Your task to perform on an android device: Open sound settings Image 0: 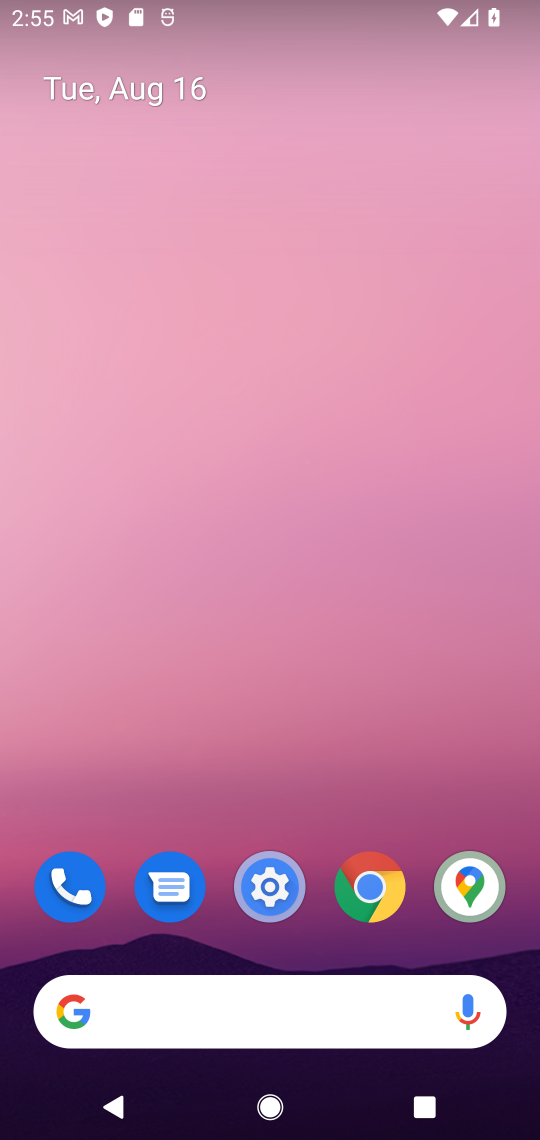
Step 0: drag from (396, 799) to (355, 181)
Your task to perform on an android device: Open sound settings Image 1: 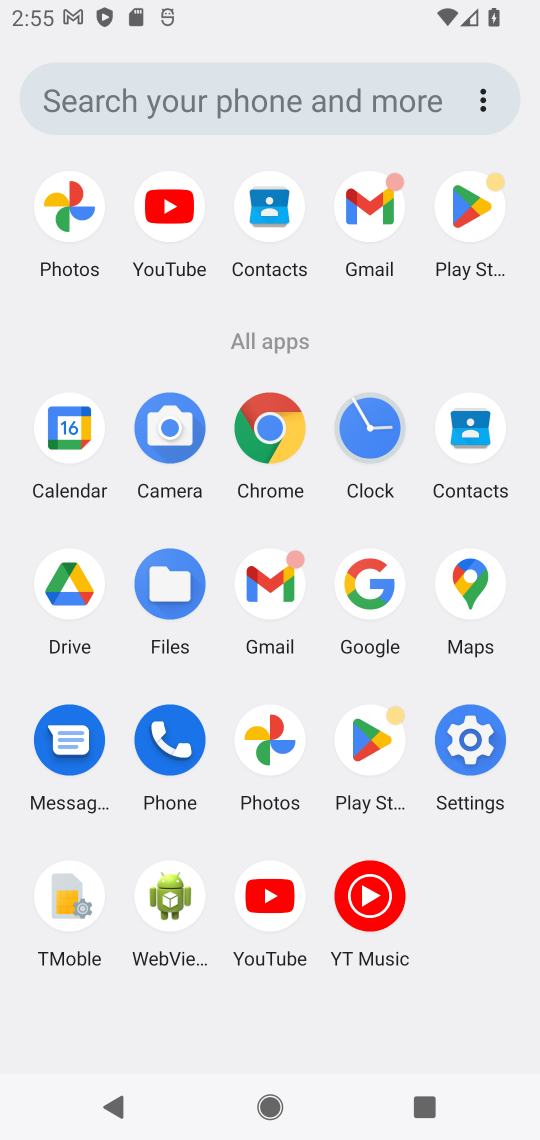
Step 1: click (467, 725)
Your task to perform on an android device: Open sound settings Image 2: 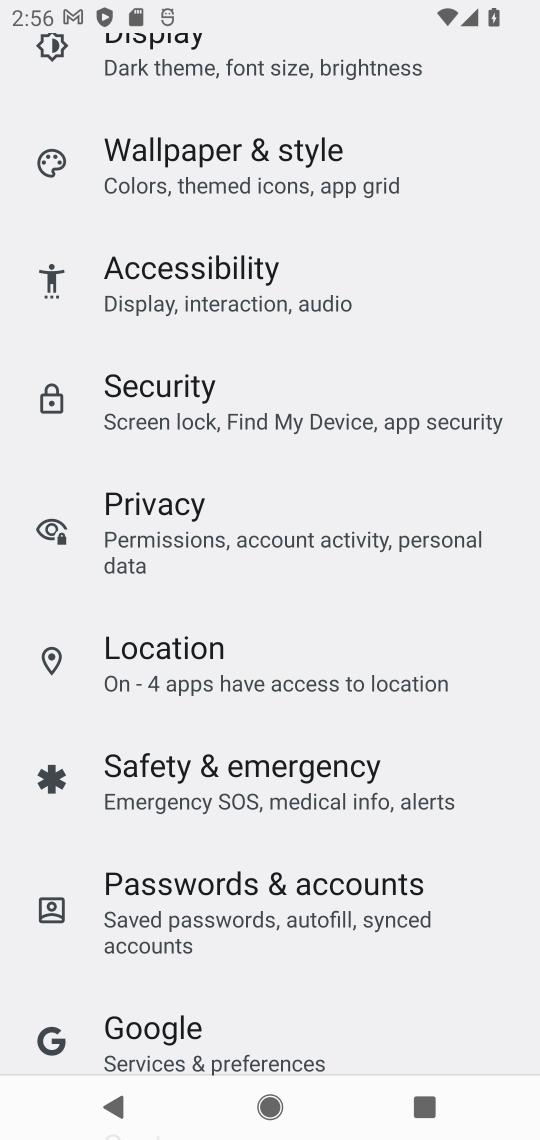
Step 2: drag from (430, 254) to (315, 956)
Your task to perform on an android device: Open sound settings Image 3: 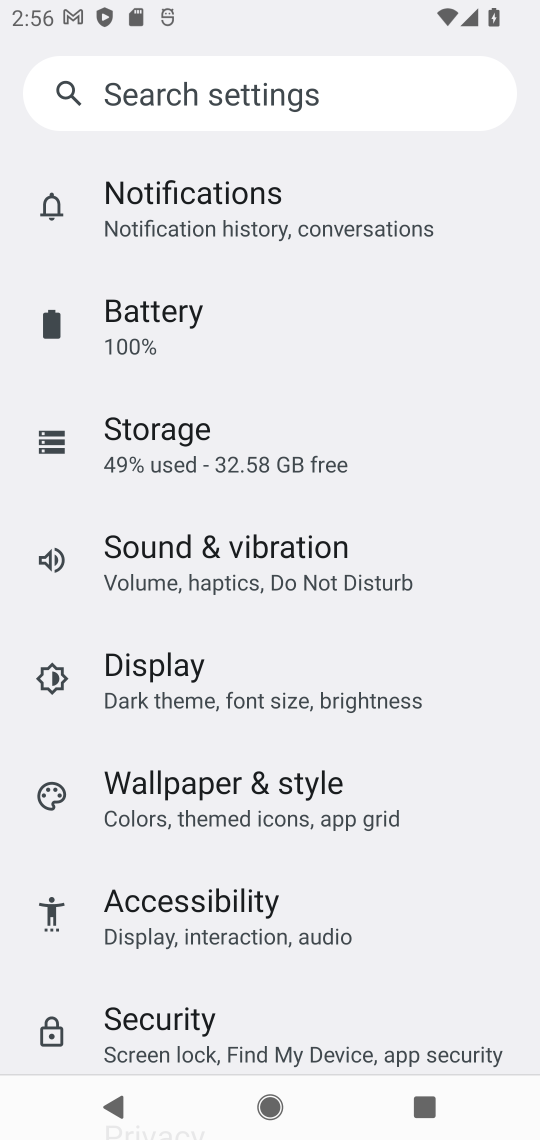
Step 3: click (248, 569)
Your task to perform on an android device: Open sound settings Image 4: 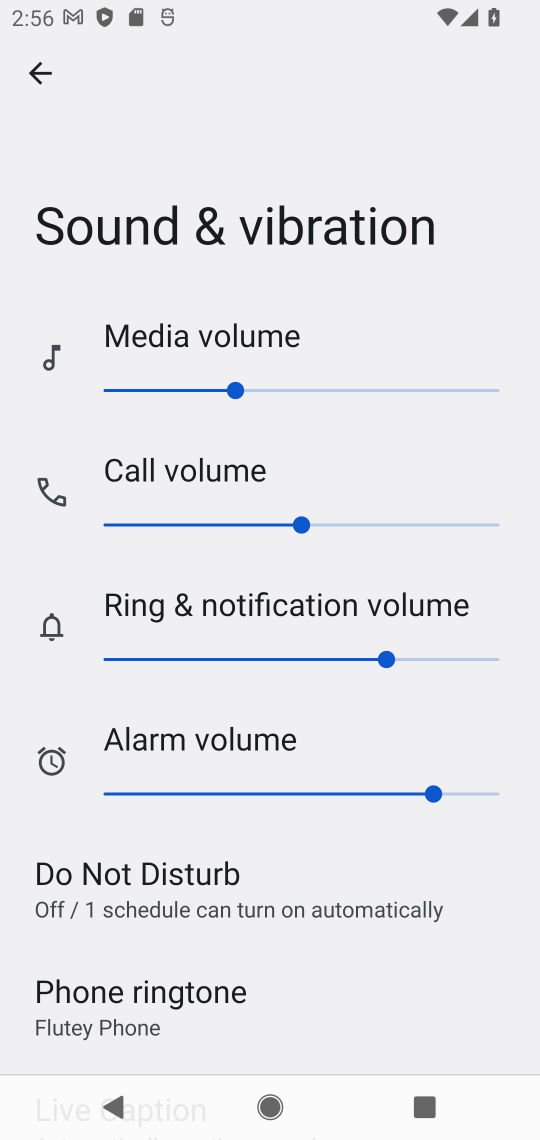
Step 4: task complete